Your task to perform on an android device: Open Wikipedia Image 0: 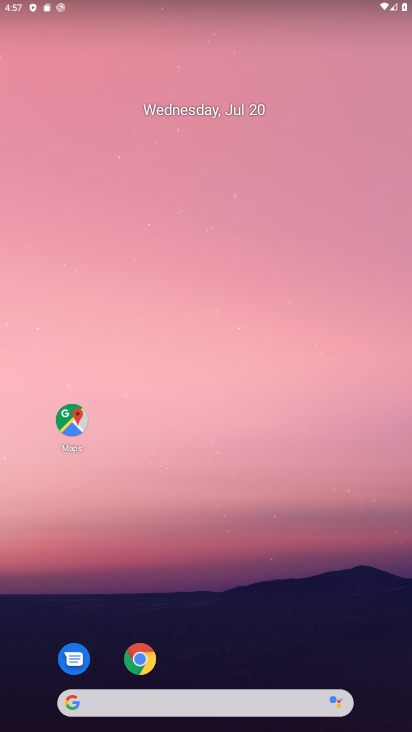
Step 0: drag from (280, 478) to (267, 246)
Your task to perform on an android device: Open Wikipedia Image 1: 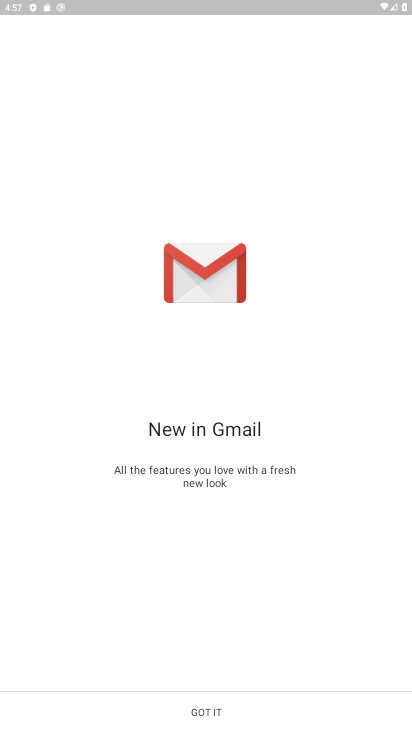
Step 1: press home button
Your task to perform on an android device: Open Wikipedia Image 2: 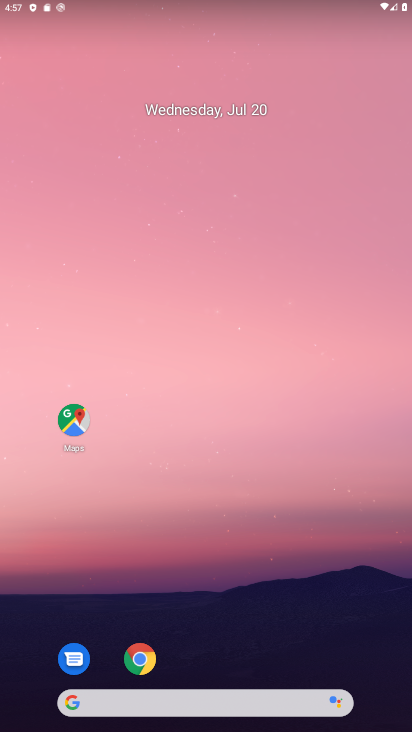
Step 2: click (144, 659)
Your task to perform on an android device: Open Wikipedia Image 3: 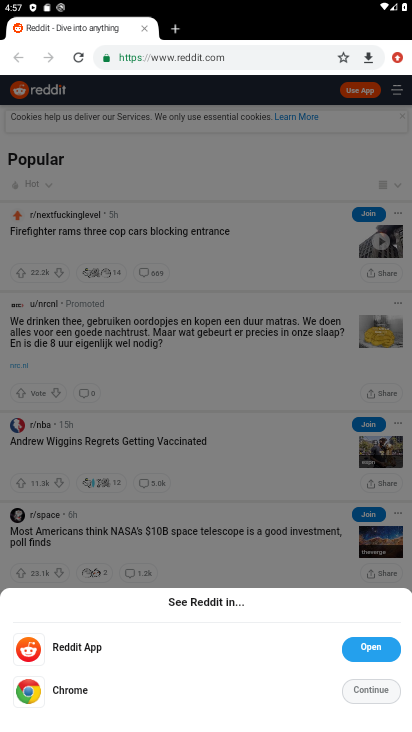
Step 3: click (144, 30)
Your task to perform on an android device: Open Wikipedia Image 4: 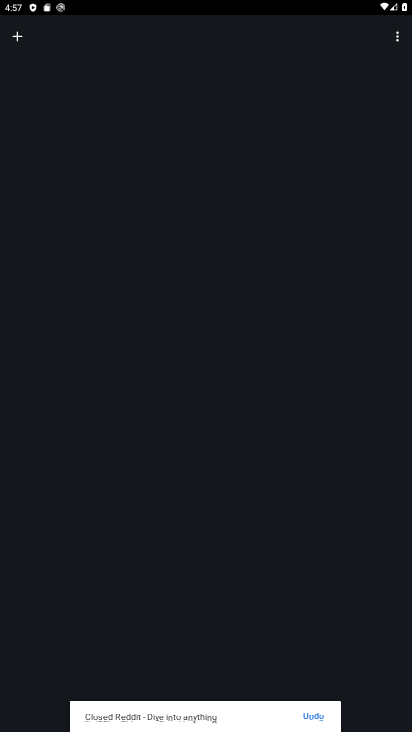
Step 4: click (23, 39)
Your task to perform on an android device: Open Wikipedia Image 5: 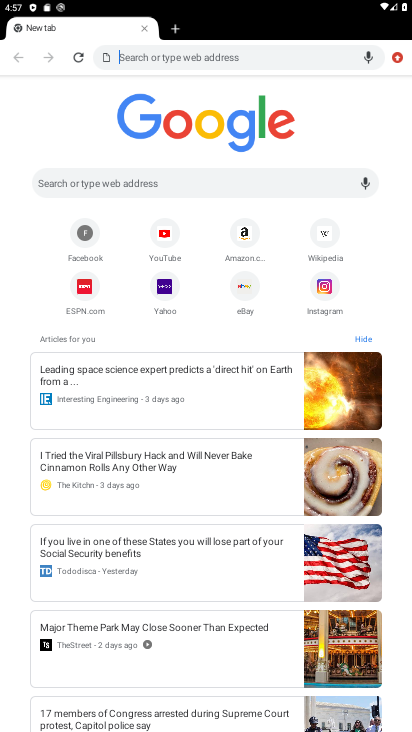
Step 5: click (326, 235)
Your task to perform on an android device: Open Wikipedia Image 6: 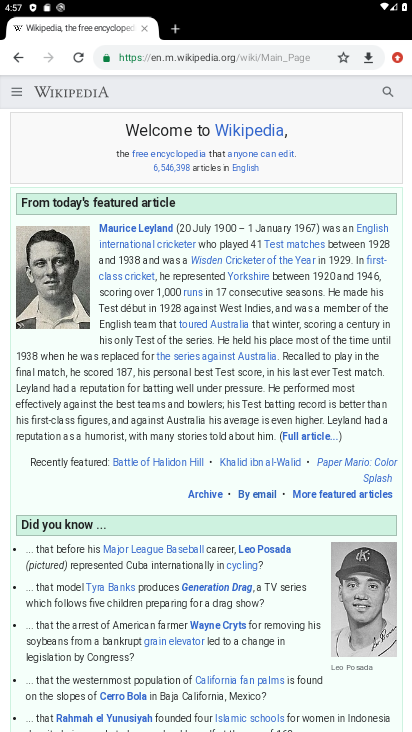
Step 6: task complete